Your task to perform on an android device: Search for Mexican restaurants on Maps Image 0: 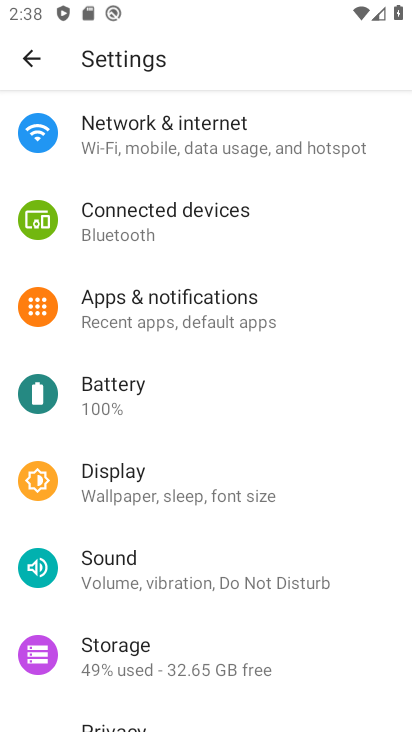
Step 0: press home button
Your task to perform on an android device: Search for Mexican restaurants on Maps Image 1: 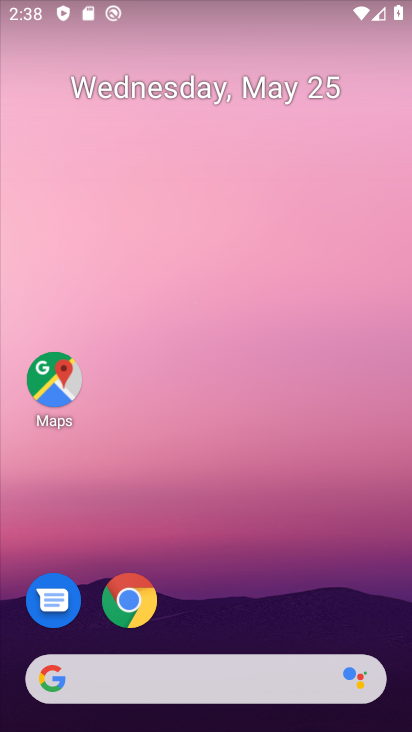
Step 1: click (44, 381)
Your task to perform on an android device: Search for Mexican restaurants on Maps Image 2: 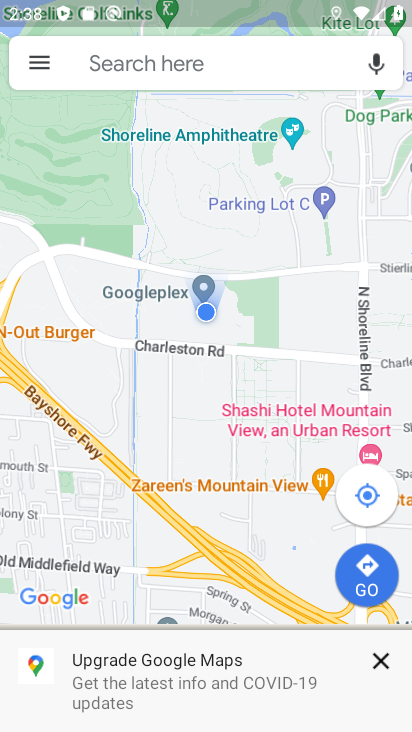
Step 2: click (161, 74)
Your task to perform on an android device: Search for Mexican restaurants on Maps Image 3: 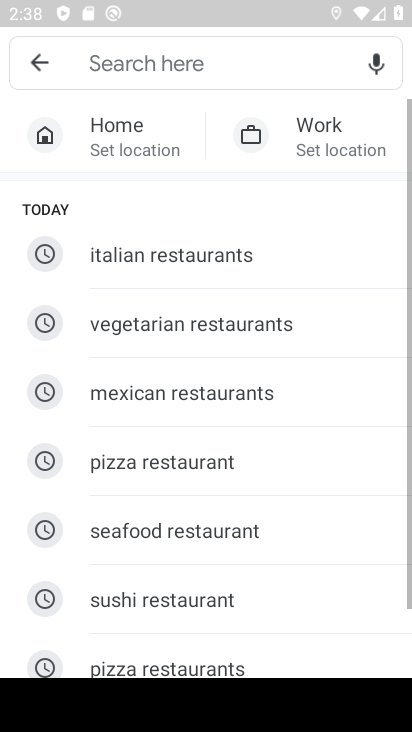
Step 3: click (142, 385)
Your task to perform on an android device: Search for Mexican restaurants on Maps Image 4: 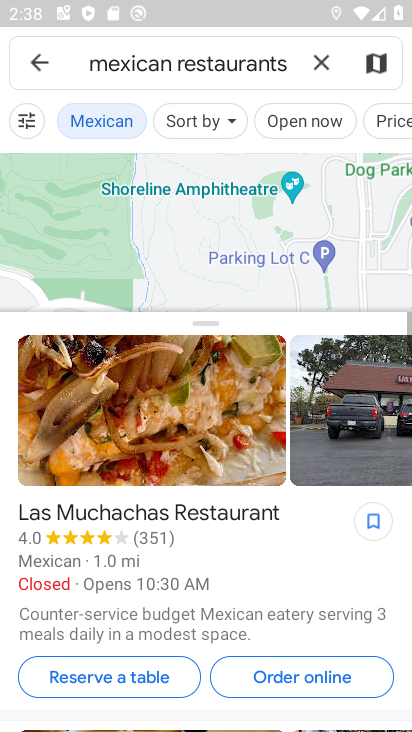
Step 4: task complete